Your task to perform on an android device: When is my next meeting? Image 0: 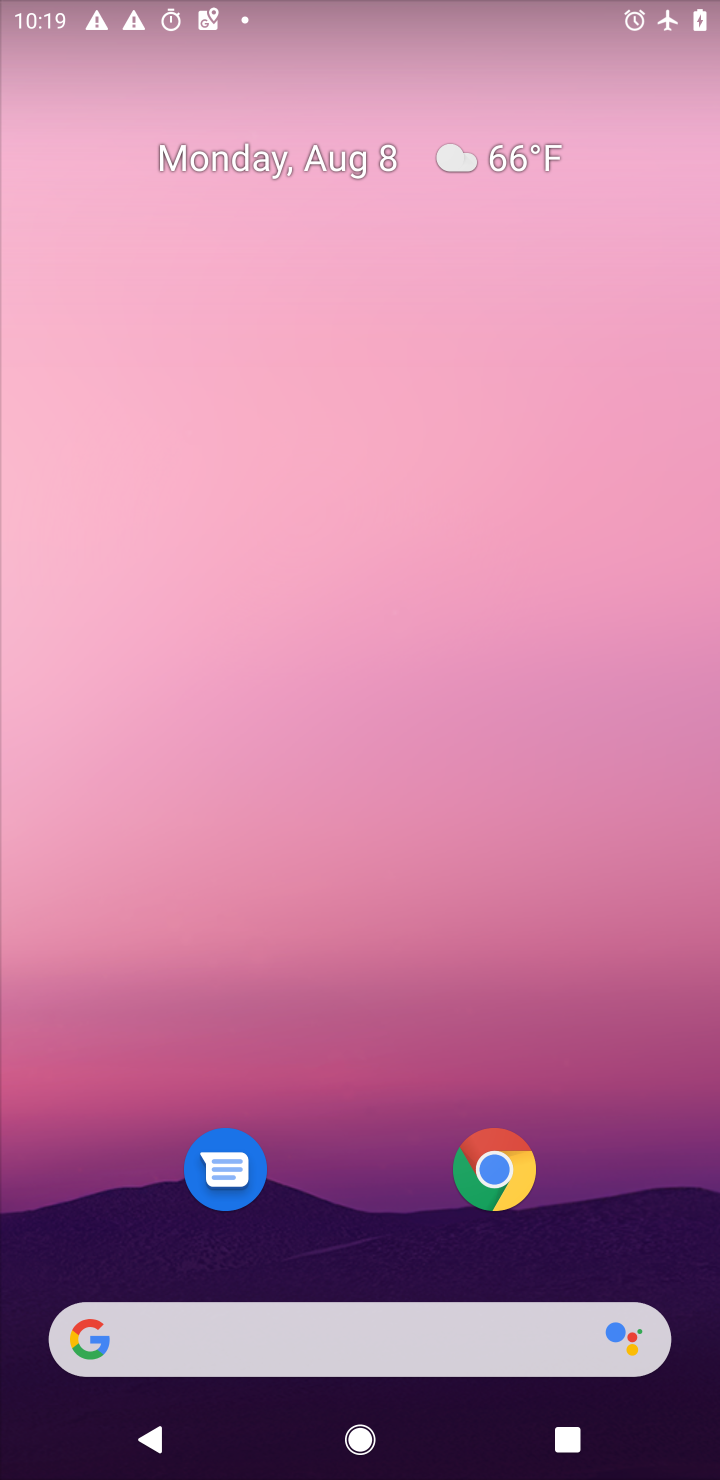
Step 0: drag from (409, 805) to (480, 31)
Your task to perform on an android device: When is my next meeting? Image 1: 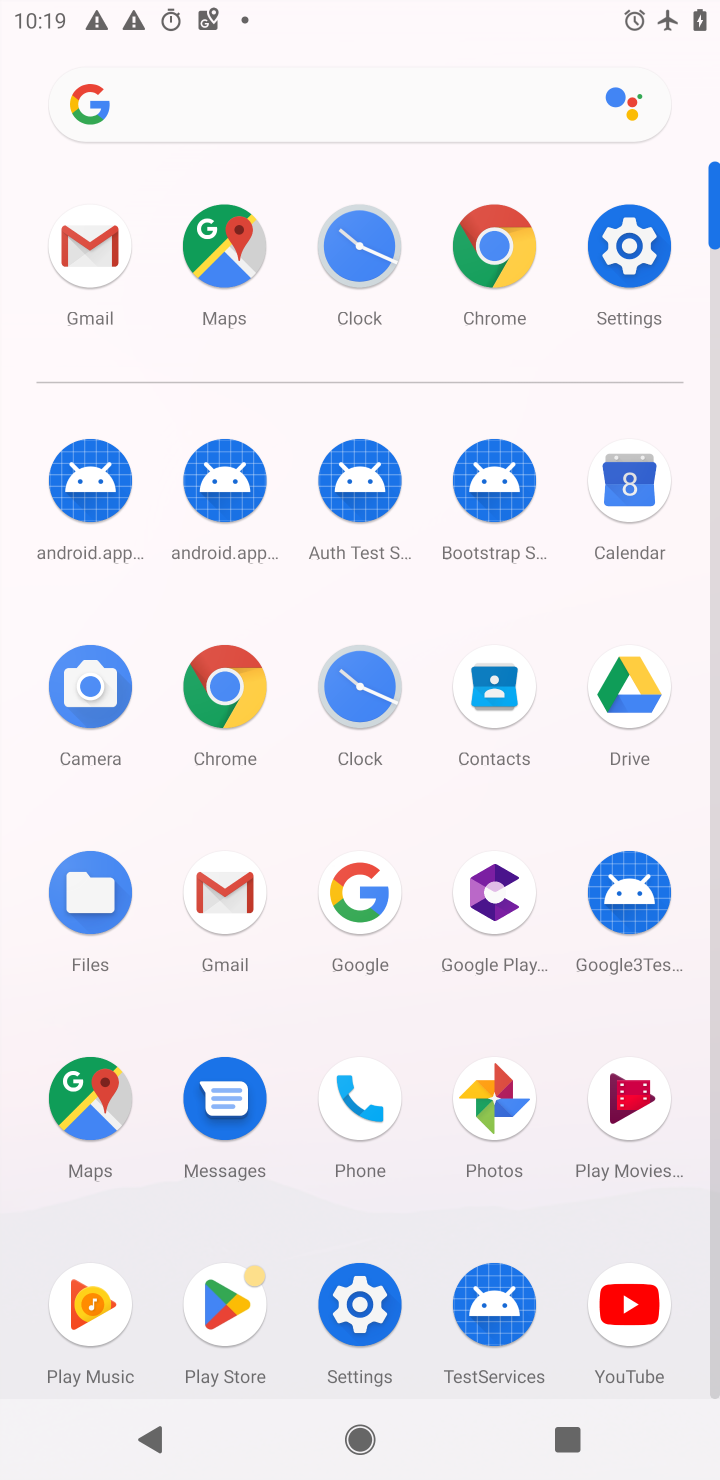
Step 1: click (631, 501)
Your task to perform on an android device: When is my next meeting? Image 2: 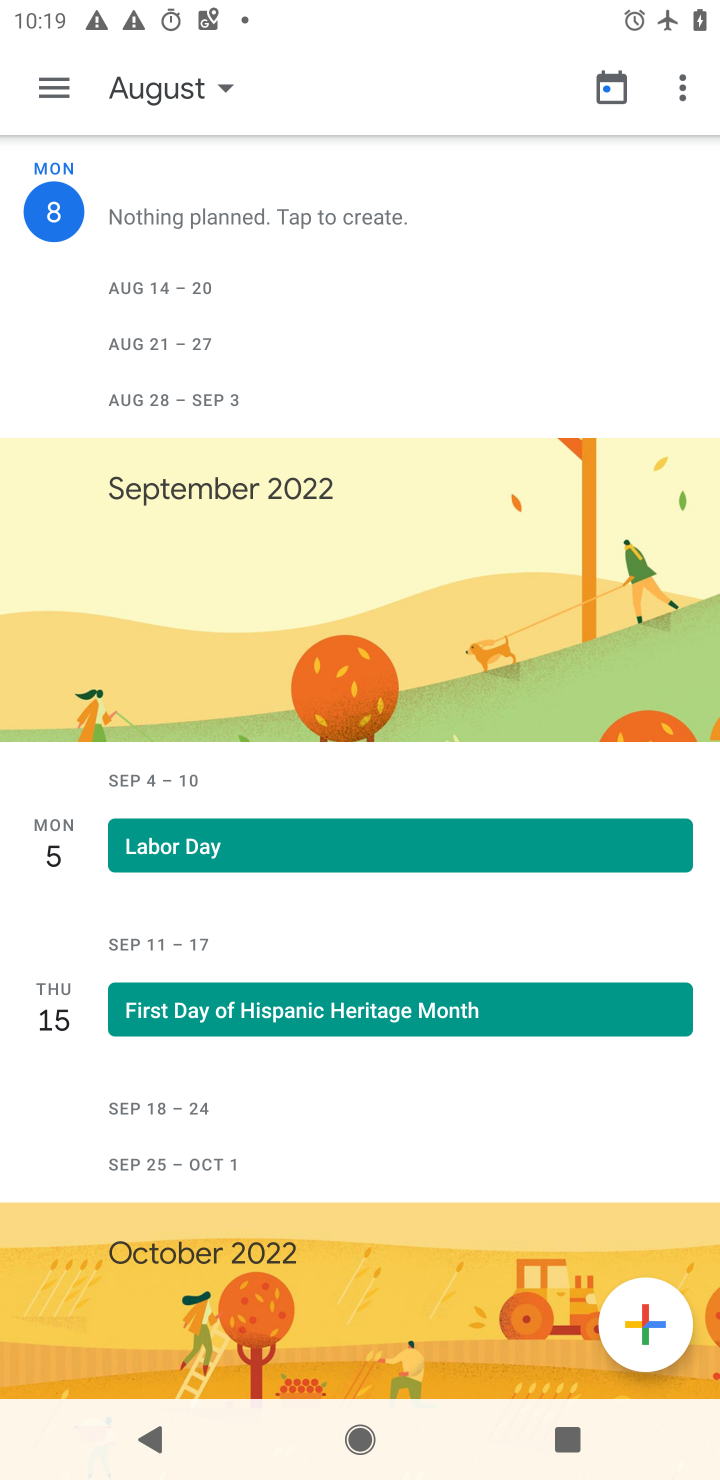
Step 2: task complete